Your task to perform on an android device: open chrome and create a bookmark for the current page Image 0: 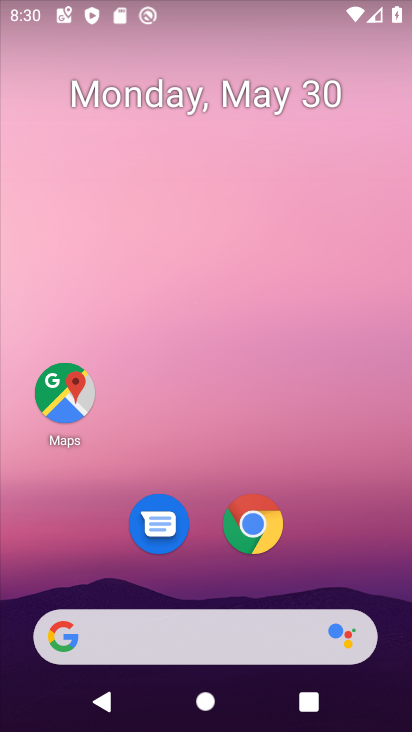
Step 0: drag from (227, 430) to (244, 2)
Your task to perform on an android device: open chrome and create a bookmark for the current page Image 1: 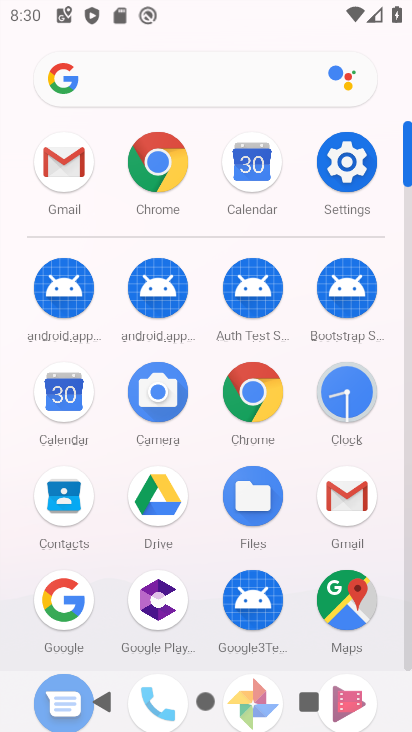
Step 1: click (156, 149)
Your task to perform on an android device: open chrome and create a bookmark for the current page Image 2: 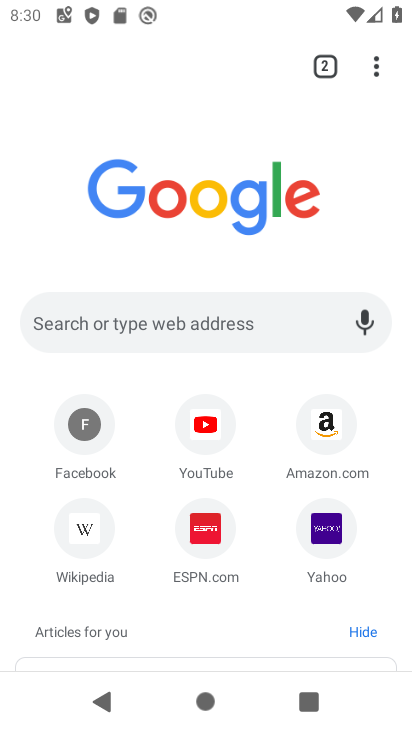
Step 2: click (373, 60)
Your task to perform on an android device: open chrome and create a bookmark for the current page Image 3: 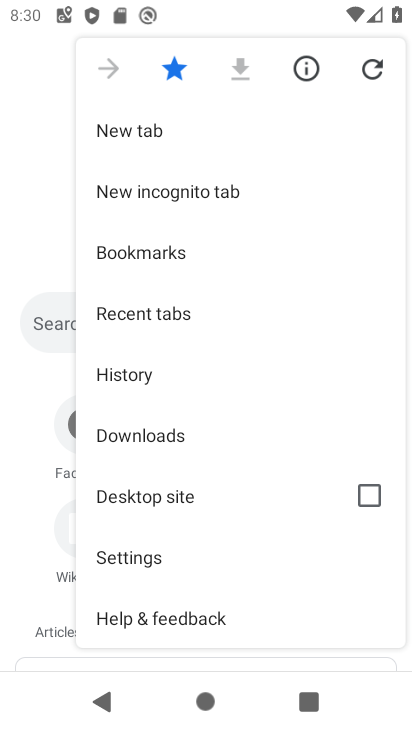
Step 3: task complete